Your task to perform on an android device: Go to wifi settings Image 0: 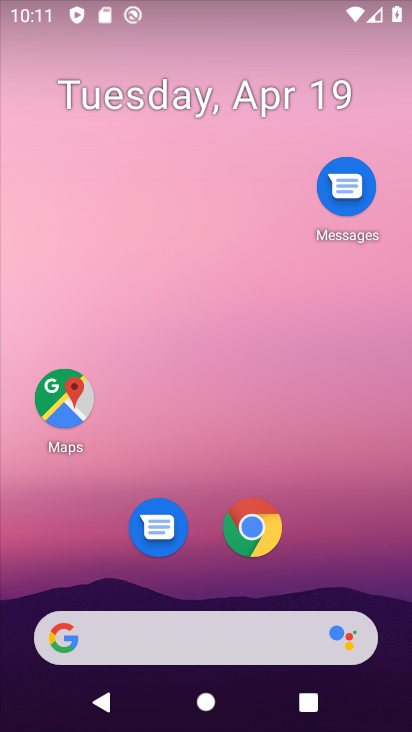
Step 0: drag from (337, 551) to (279, 164)
Your task to perform on an android device: Go to wifi settings Image 1: 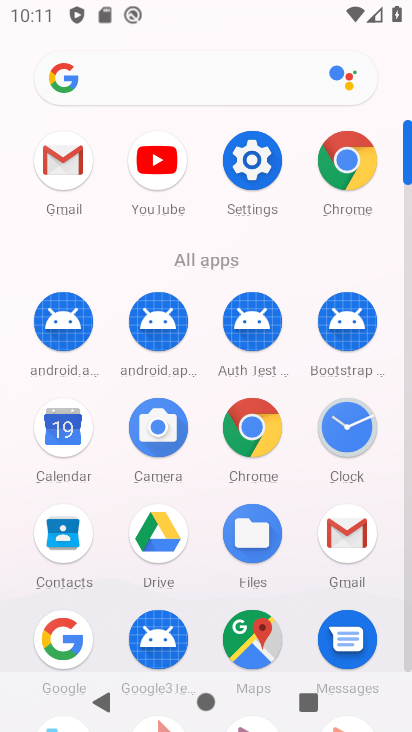
Step 1: click (253, 176)
Your task to perform on an android device: Go to wifi settings Image 2: 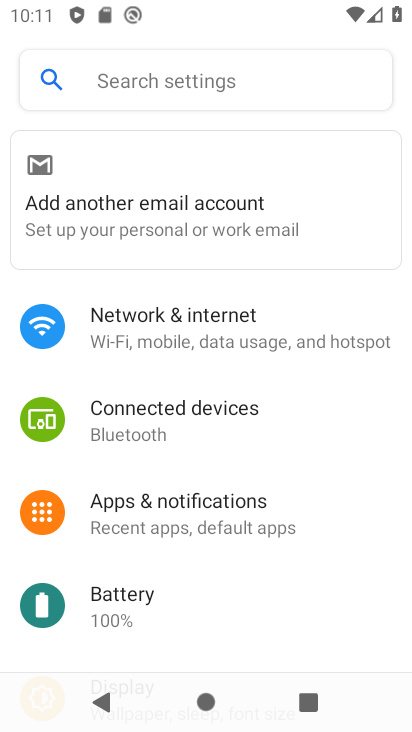
Step 2: click (251, 342)
Your task to perform on an android device: Go to wifi settings Image 3: 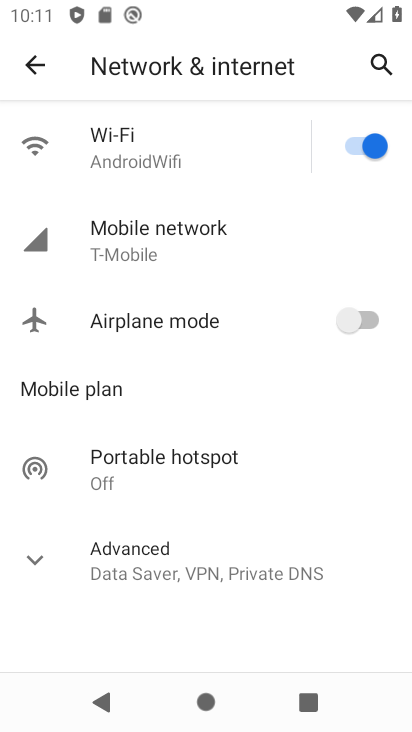
Step 3: click (138, 149)
Your task to perform on an android device: Go to wifi settings Image 4: 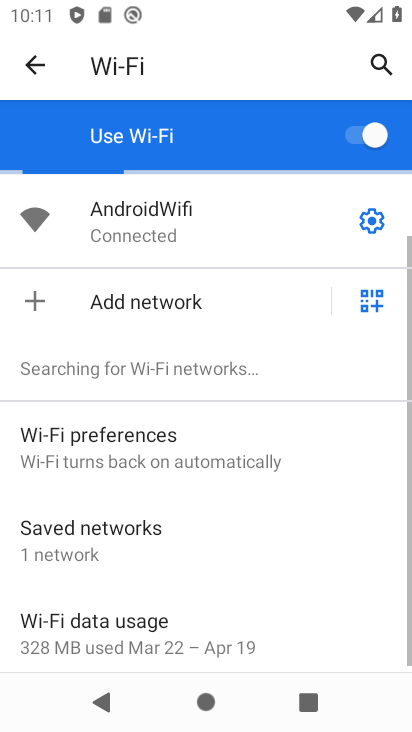
Step 4: task complete